Your task to perform on an android device: open app "Indeed Job Search" Image 0: 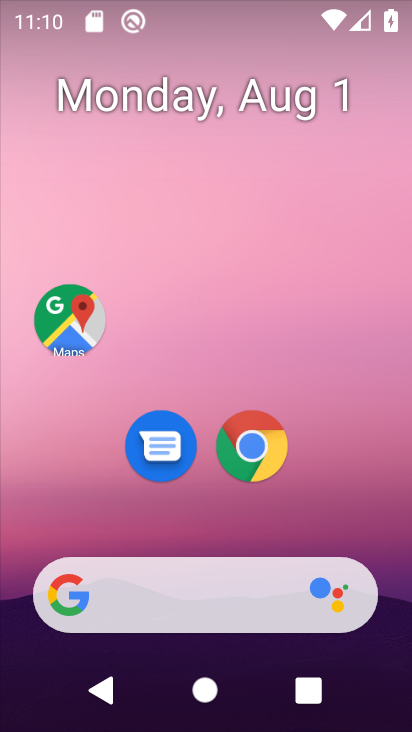
Step 0: drag from (204, 541) to (195, 187)
Your task to perform on an android device: open app "Indeed Job Search" Image 1: 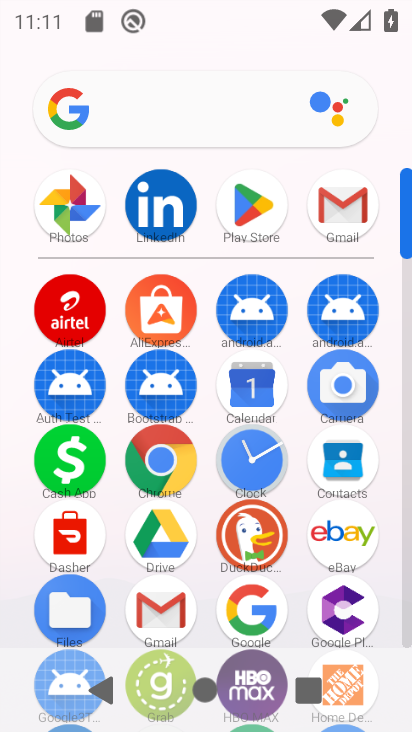
Step 1: click (255, 230)
Your task to perform on an android device: open app "Indeed Job Search" Image 2: 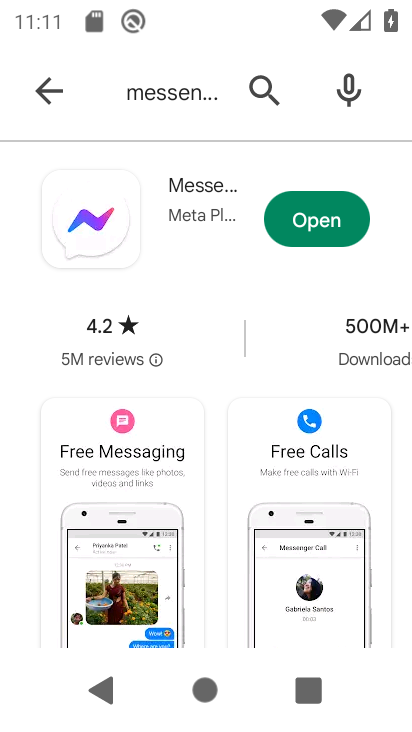
Step 2: click (264, 102)
Your task to perform on an android device: open app "Indeed Job Search" Image 3: 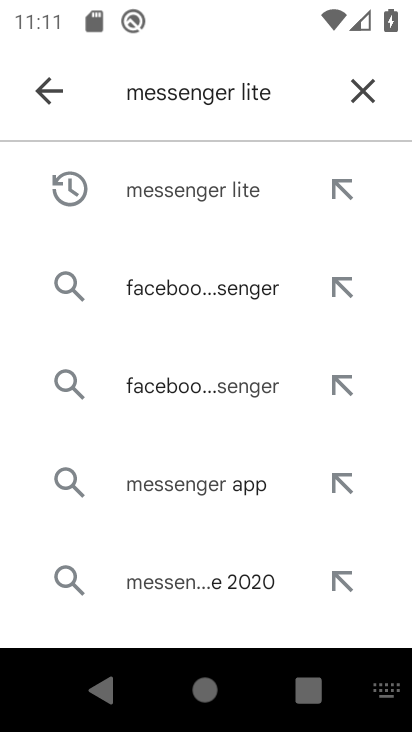
Step 3: click (350, 83)
Your task to perform on an android device: open app "Indeed Job Search" Image 4: 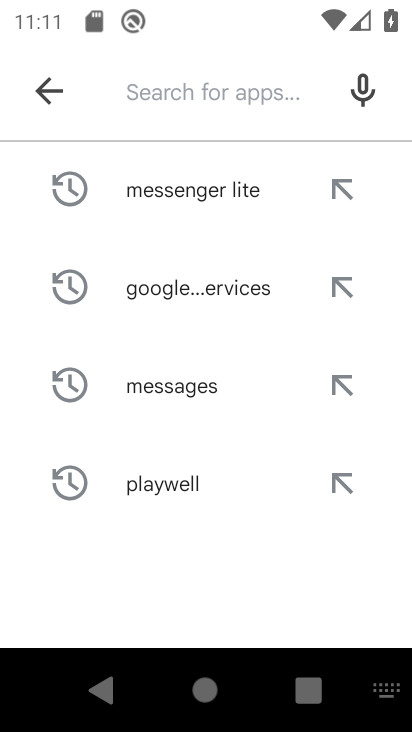
Step 4: type "Indeed Job Search"
Your task to perform on an android device: open app "Indeed Job Search" Image 5: 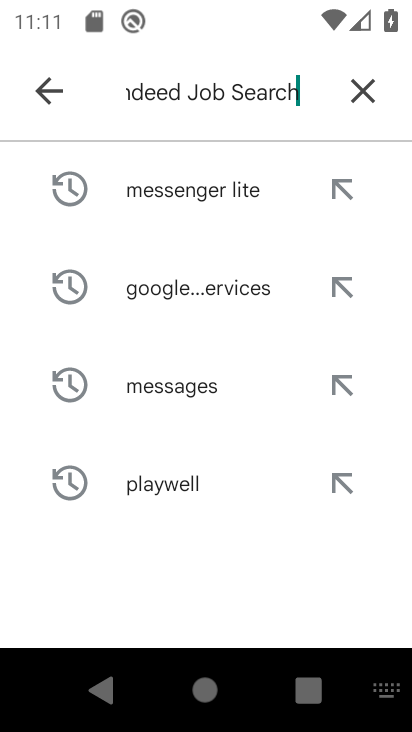
Step 5: type ""
Your task to perform on an android device: open app "Indeed Job Search" Image 6: 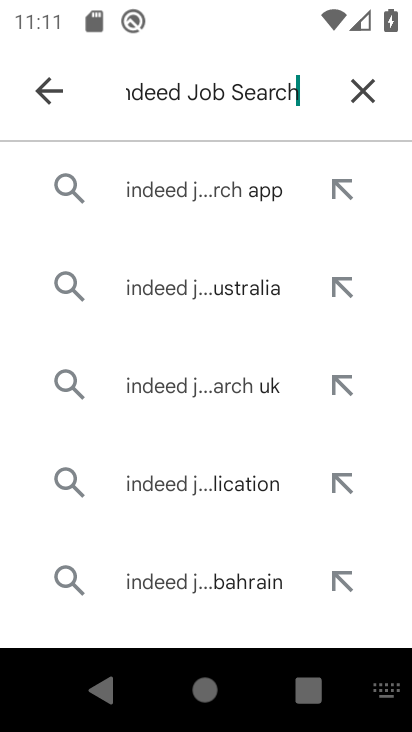
Step 6: click (218, 179)
Your task to perform on an android device: open app "Indeed Job Search" Image 7: 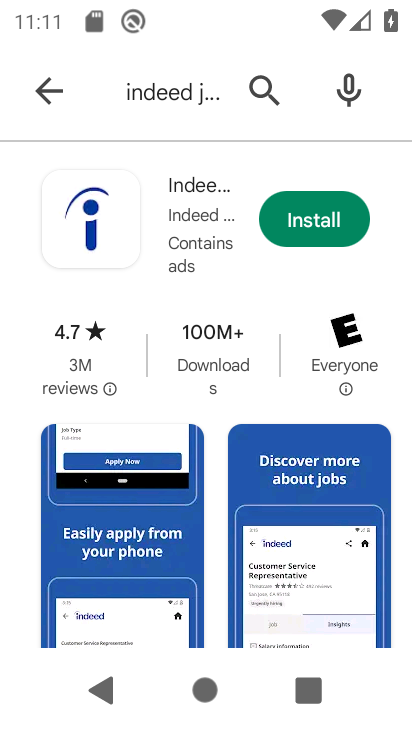
Step 7: task complete